Your task to perform on an android device: install app "Google Play Games" Image 0: 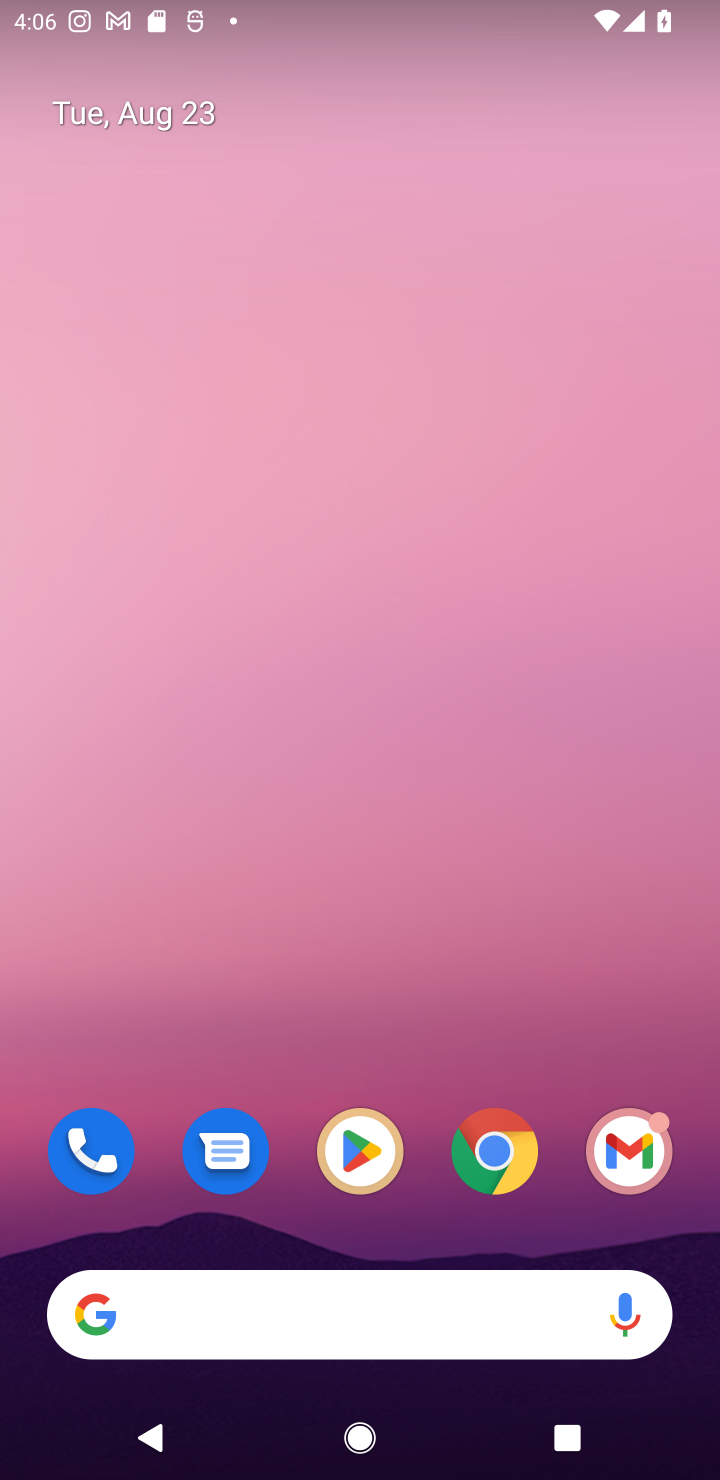
Step 0: click (362, 1147)
Your task to perform on an android device: install app "Google Play Games" Image 1: 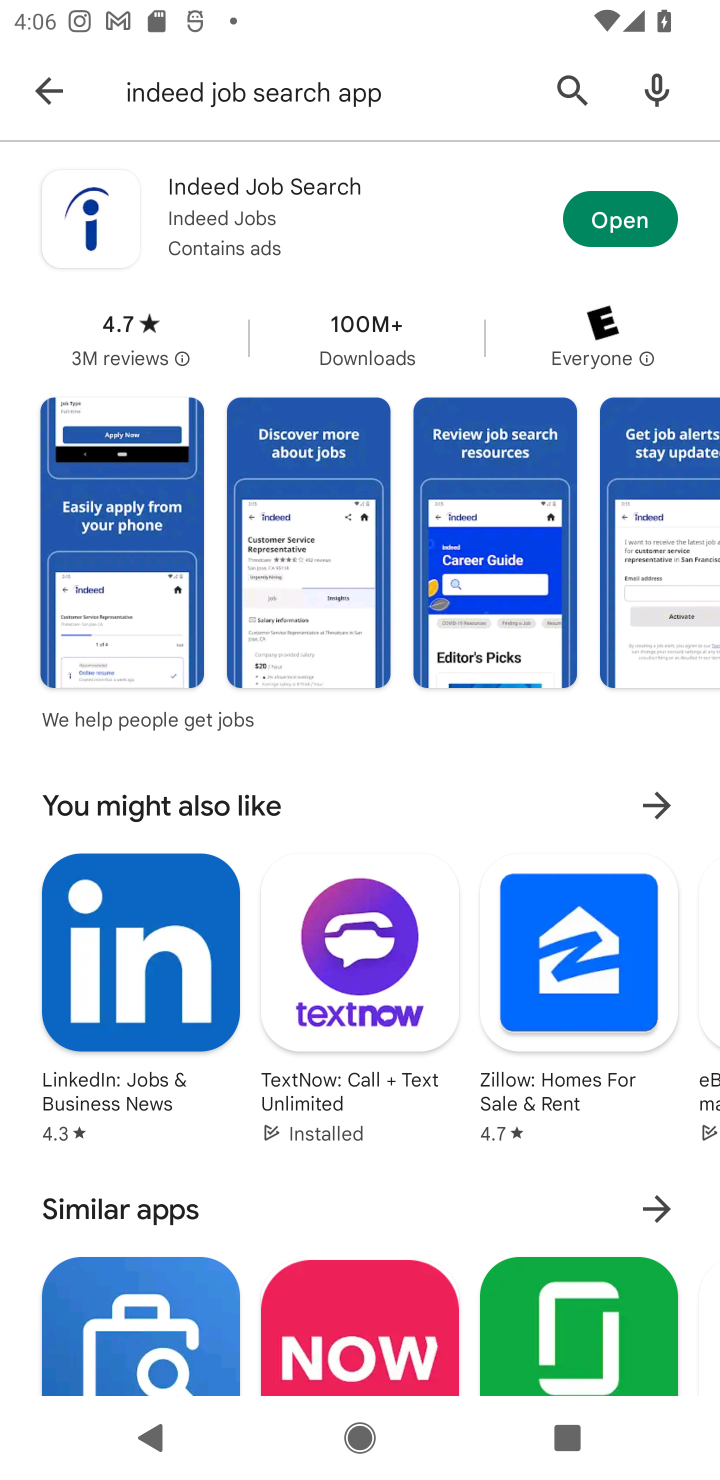
Step 1: click (569, 74)
Your task to perform on an android device: install app "Google Play Games" Image 2: 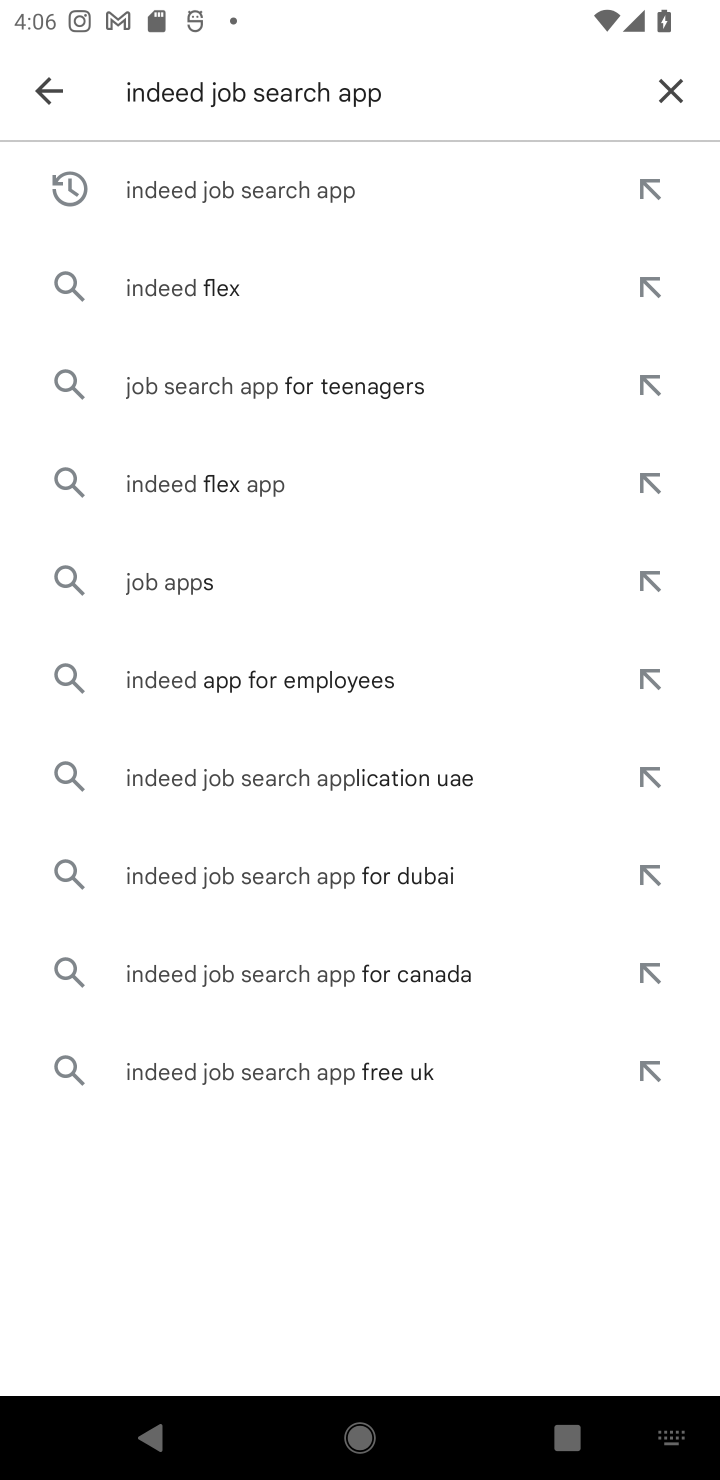
Step 2: click (674, 81)
Your task to perform on an android device: install app "Google Play Games" Image 3: 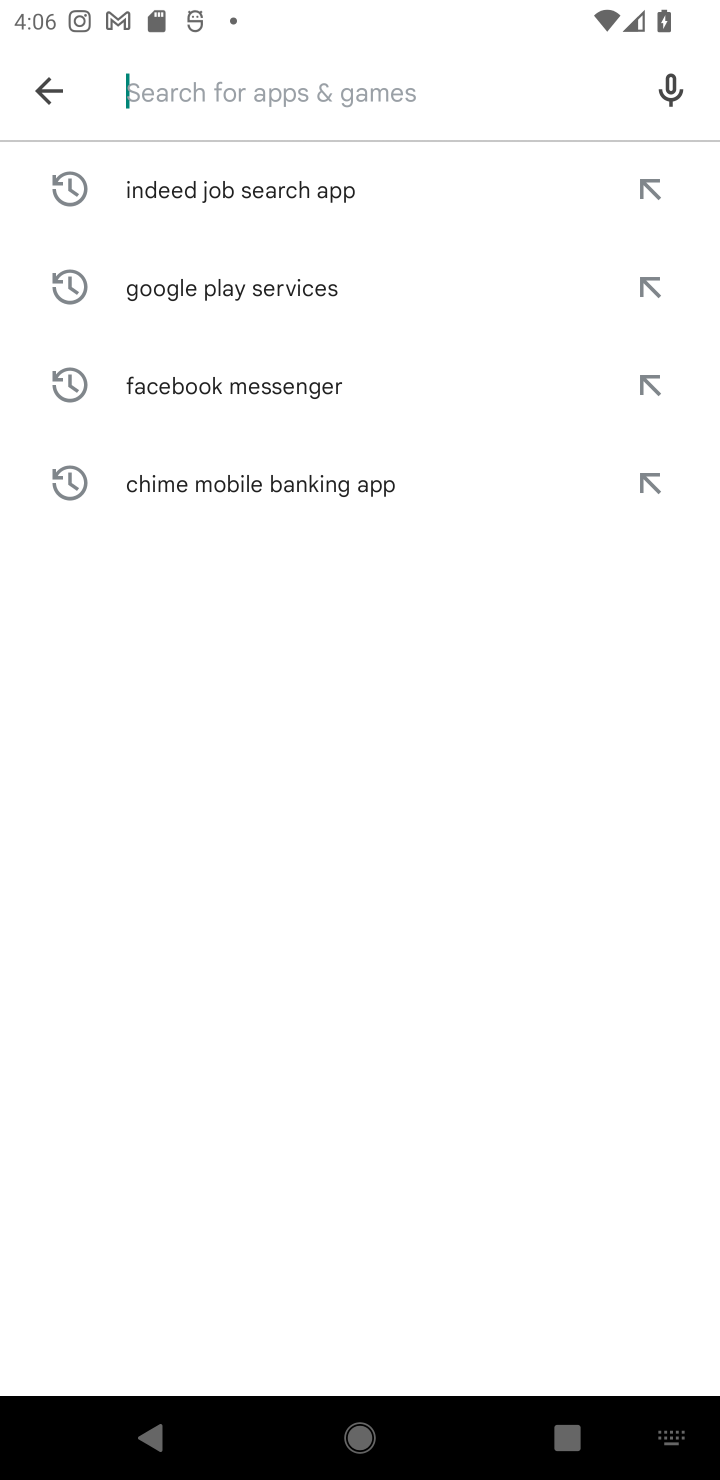
Step 3: type "Google Play Games"
Your task to perform on an android device: install app "Google Play Games" Image 4: 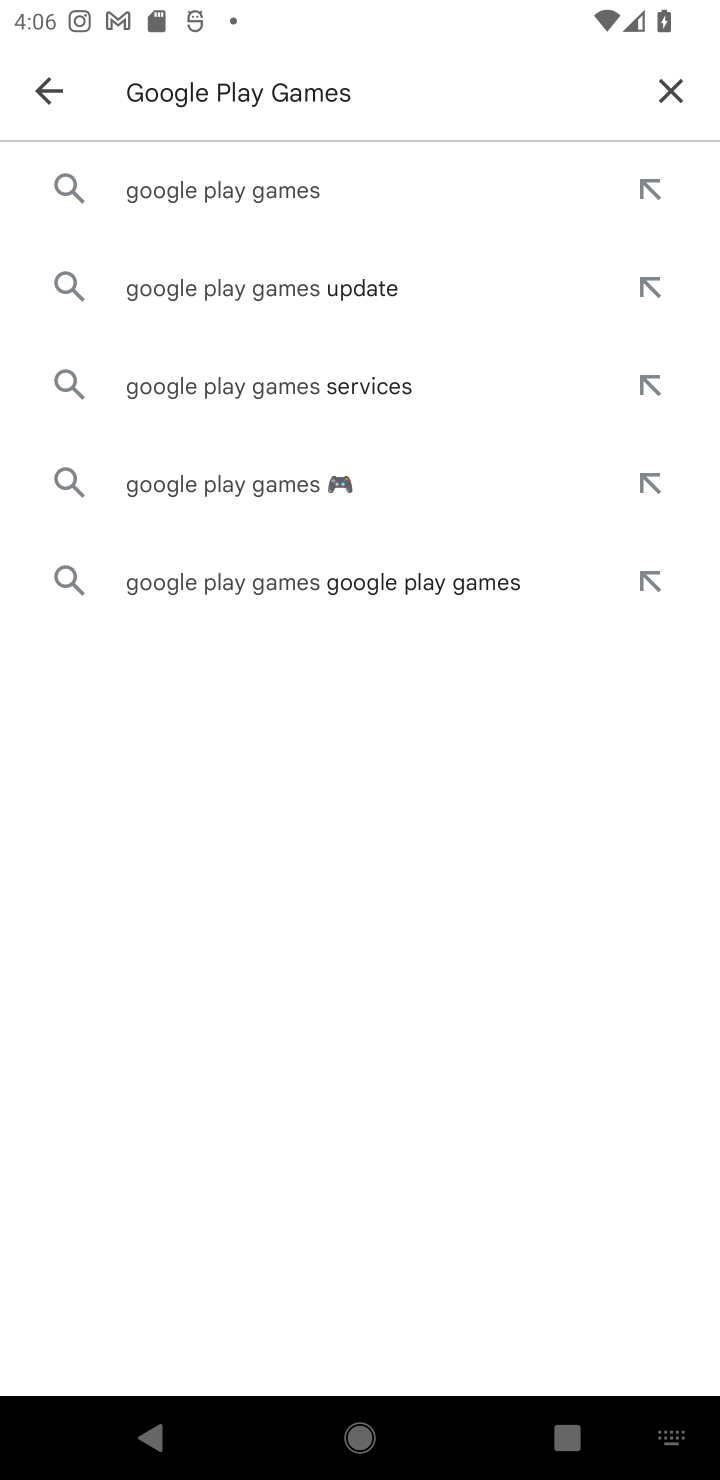
Step 4: click (291, 189)
Your task to perform on an android device: install app "Google Play Games" Image 5: 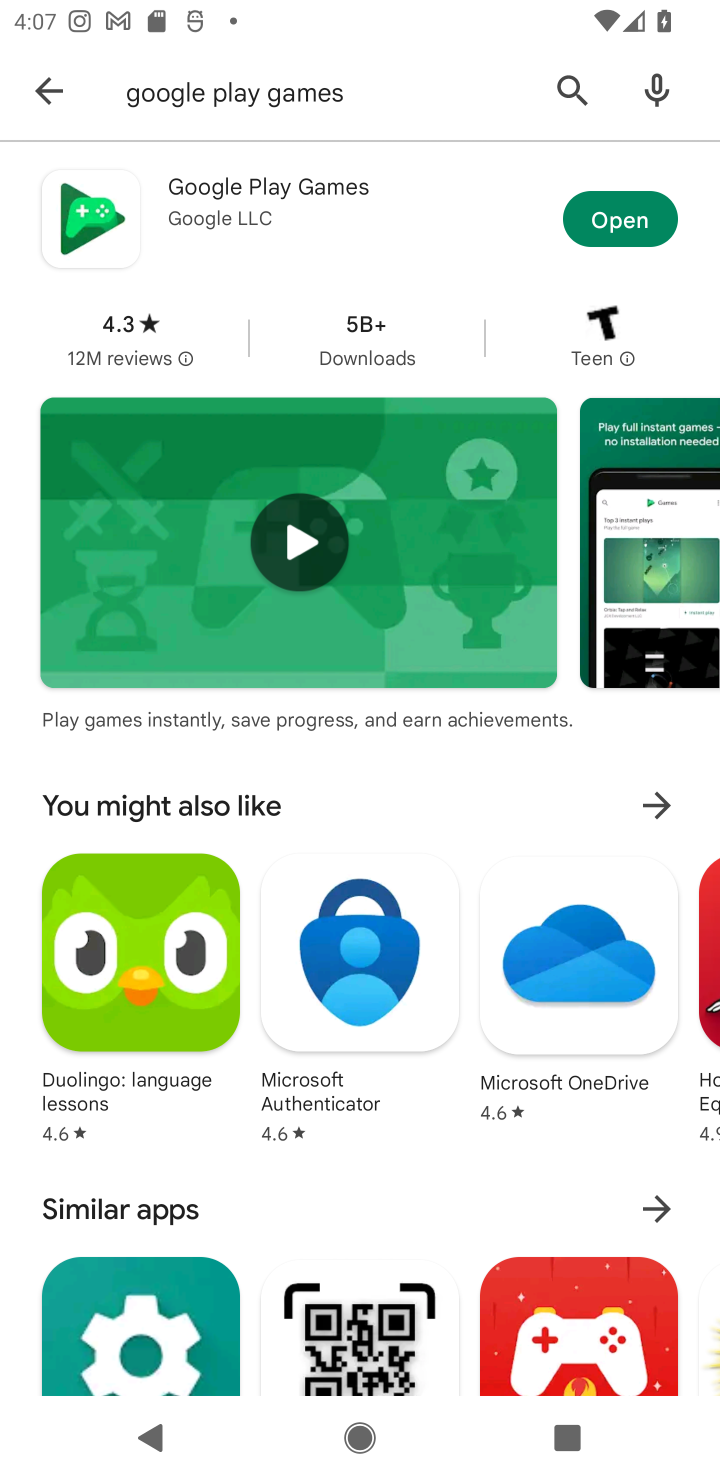
Step 5: task complete